Your task to perform on an android device: Search for usb-c to usb-b on amazon, select the first entry, and add it to the cart. Image 0: 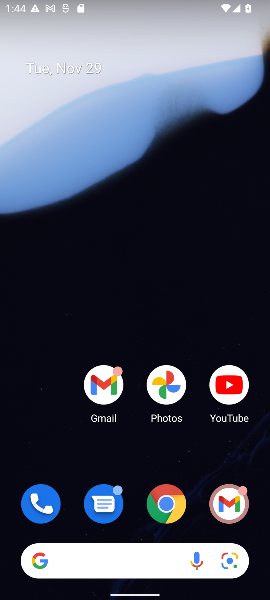
Step 0: click (162, 513)
Your task to perform on an android device: Search for usb-c to usb-b on amazon, select the first entry, and add it to the cart. Image 1: 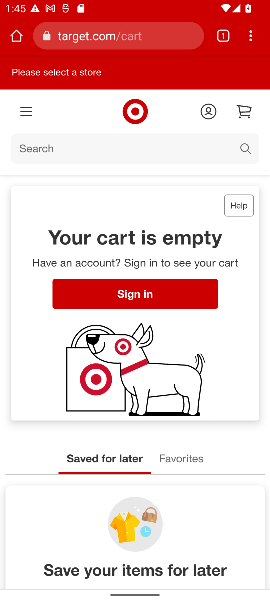
Step 1: click (88, 39)
Your task to perform on an android device: Search for usb-c to usb-b on amazon, select the first entry, and add it to the cart. Image 2: 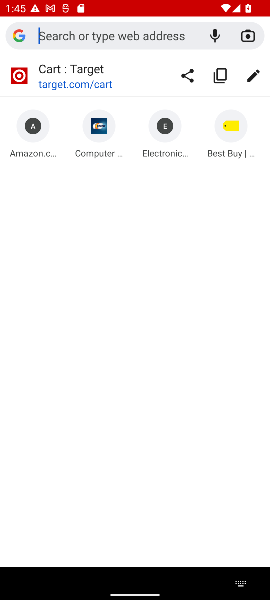
Step 2: click (39, 137)
Your task to perform on an android device: Search for usb-c to usb-b on amazon, select the first entry, and add it to the cart. Image 3: 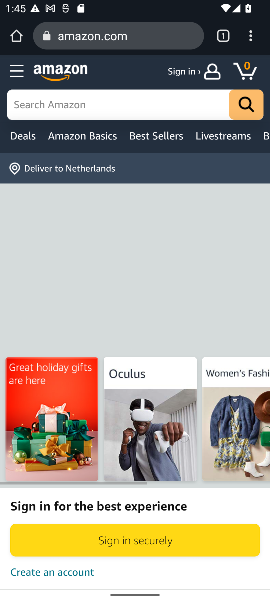
Step 3: click (27, 111)
Your task to perform on an android device: Search for usb-c to usb-b on amazon, select the first entry, and add it to the cart. Image 4: 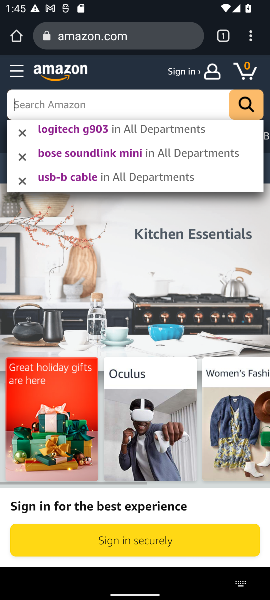
Step 4: type "usb-c to usb-b"
Your task to perform on an android device: Search for usb-c to usb-b on amazon, select the first entry, and add it to the cart. Image 5: 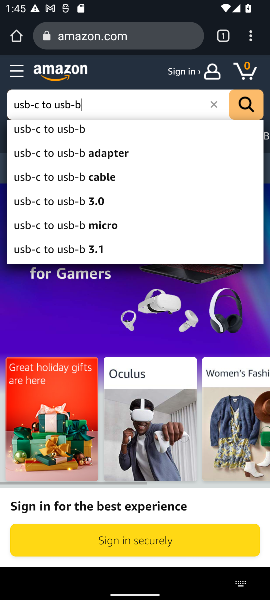
Step 5: click (65, 132)
Your task to perform on an android device: Search for usb-c to usb-b on amazon, select the first entry, and add it to the cart. Image 6: 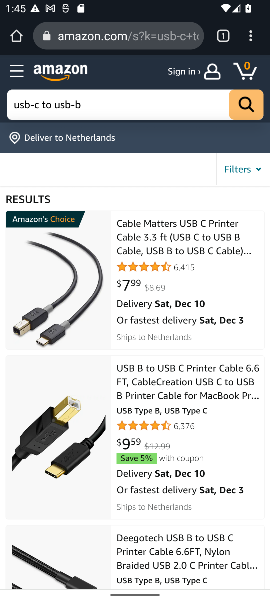
Step 6: click (143, 239)
Your task to perform on an android device: Search for usb-c to usb-b on amazon, select the first entry, and add it to the cart. Image 7: 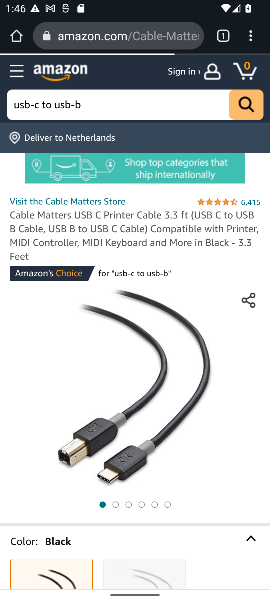
Step 7: drag from (126, 419) to (126, 177)
Your task to perform on an android device: Search for usb-c to usb-b on amazon, select the first entry, and add it to the cart. Image 8: 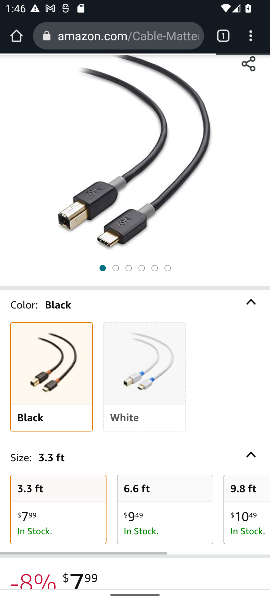
Step 8: drag from (130, 347) to (126, 281)
Your task to perform on an android device: Search for usb-c to usb-b on amazon, select the first entry, and add it to the cart. Image 9: 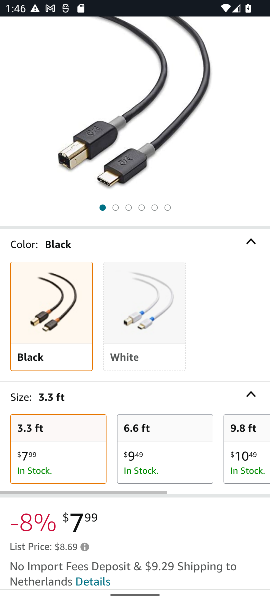
Step 9: drag from (134, 514) to (142, 319)
Your task to perform on an android device: Search for usb-c to usb-b on amazon, select the first entry, and add it to the cart. Image 10: 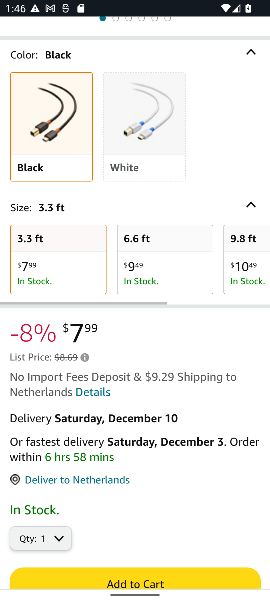
Step 10: drag from (124, 480) to (121, 350)
Your task to perform on an android device: Search for usb-c to usb-b on amazon, select the first entry, and add it to the cart. Image 11: 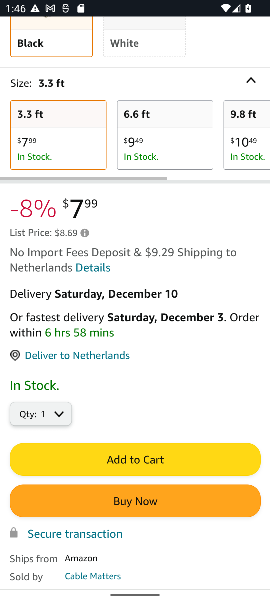
Step 11: click (118, 460)
Your task to perform on an android device: Search for usb-c to usb-b on amazon, select the first entry, and add it to the cart. Image 12: 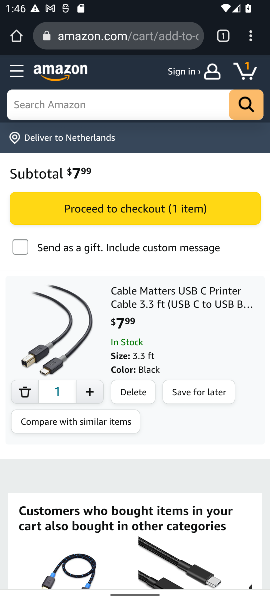
Step 12: task complete